Your task to perform on an android device: snooze an email in the gmail app Image 0: 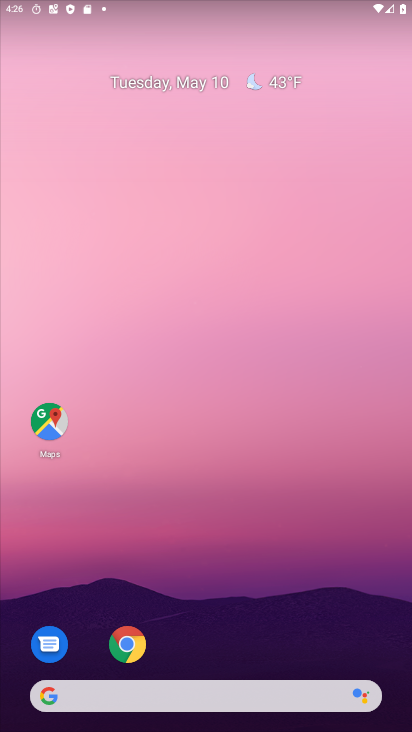
Step 0: drag from (199, 675) to (191, 348)
Your task to perform on an android device: snooze an email in the gmail app Image 1: 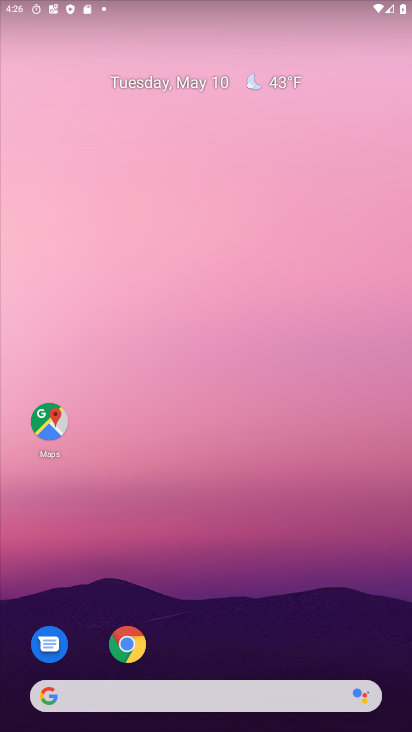
Step 1: drag from (233, 685) to (200, 257)
Your task to perform on an android device: snooze an email in the gmail app Image 2: 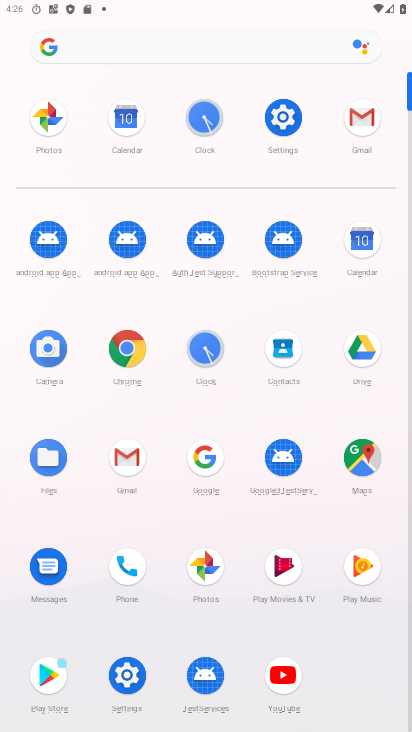
Step 2: click (369, 111)
Your task to perform on an android device: snooze an email in the gmail app Image 3: 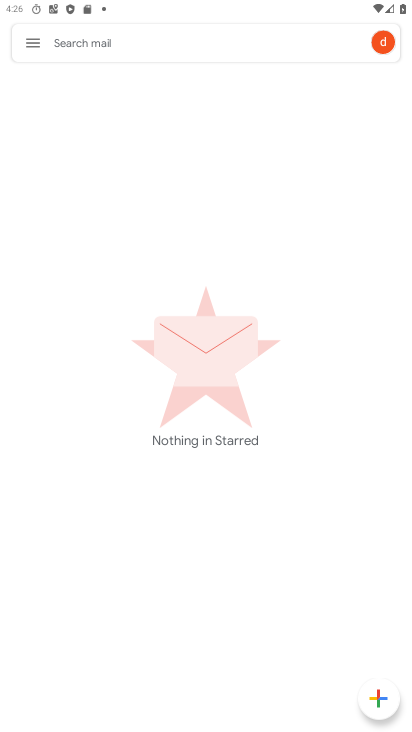
Step 3: click (32, 38)
Your task to perform on an android device: snooze an email in the gmail app Image 4: 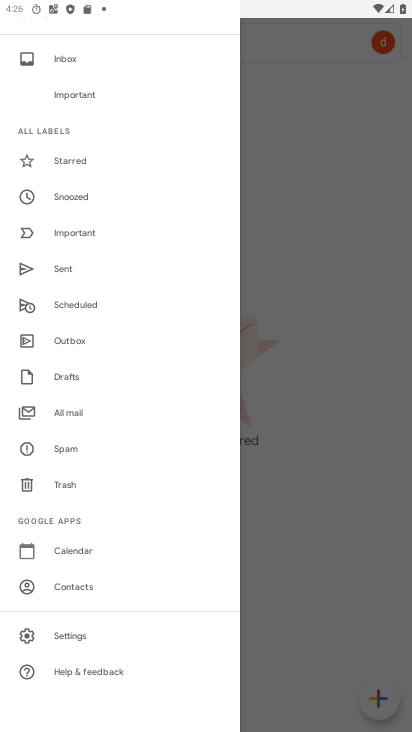
Step 4: click (67, 197)
Your task to perform on an android device: snooze an email in the gmail app Image 5: 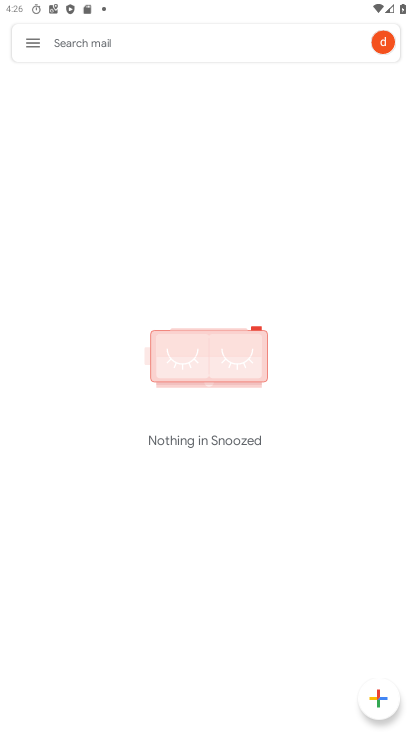
Step 5: task complete